Your task to perform on an android device: Open calendar and show me the third week of next month Image 0: 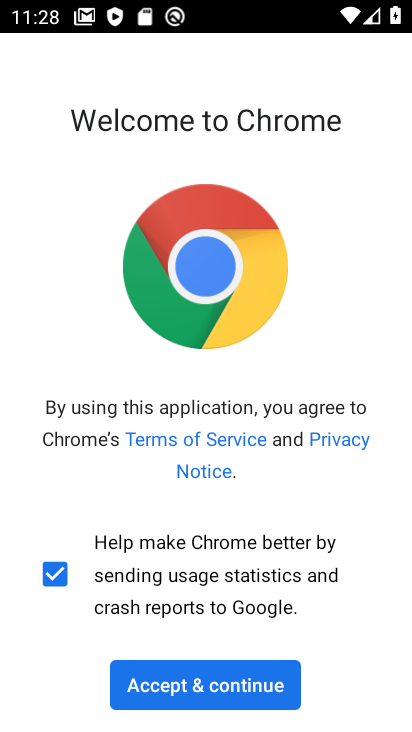
Step 0: press home button
Your task to perform on an android device: Open calendar and show me the third week of next month Image 1: 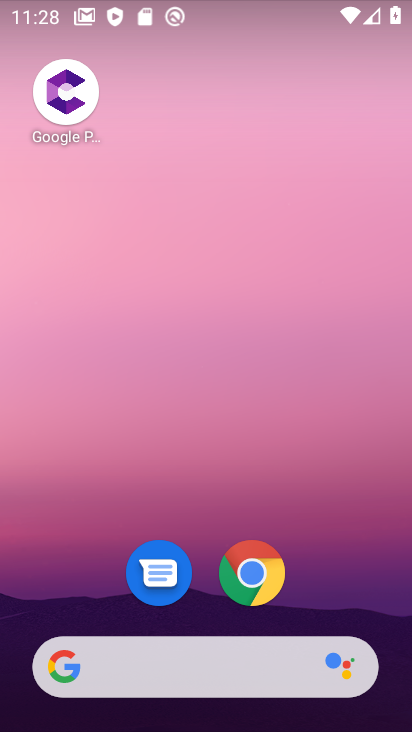
Step 1: drag from (133, 644) to (164, 81)
Your task to perform on an android device: Open calendar and show me the third week of next month Image 2: 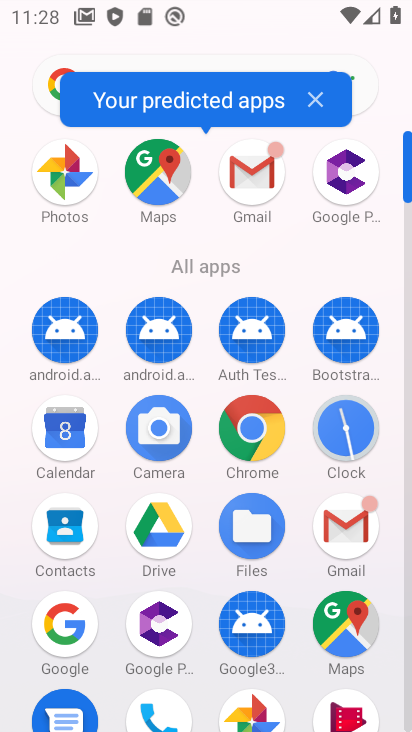
Step 2: click (51, 431)
Your task to perform on an android device: Open calendar and show me the third week of next month Image 3: 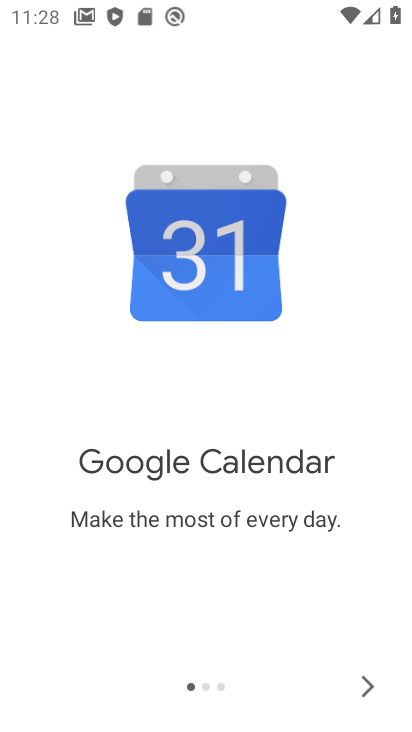
Step 3: click (365, 680)
Your task to perform on an android device: Open calendar and show me the third week of next month Image 4: 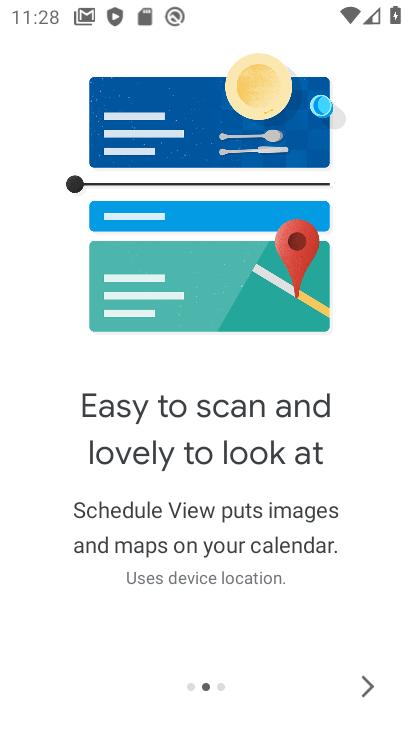
Step 4: click (365, 680)
Your task to perform on an android device: Open calendar and show me the third week of next month Image 5: 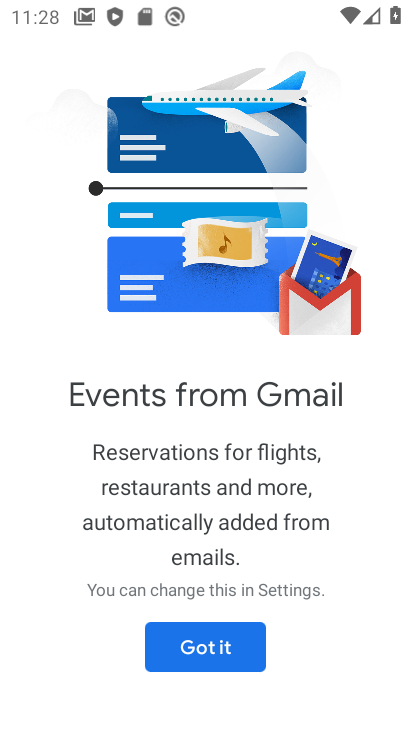
Step 5: click (170, 650)
Your task to perform on an android device: Open calendar and show me the third week of next month Image 6: 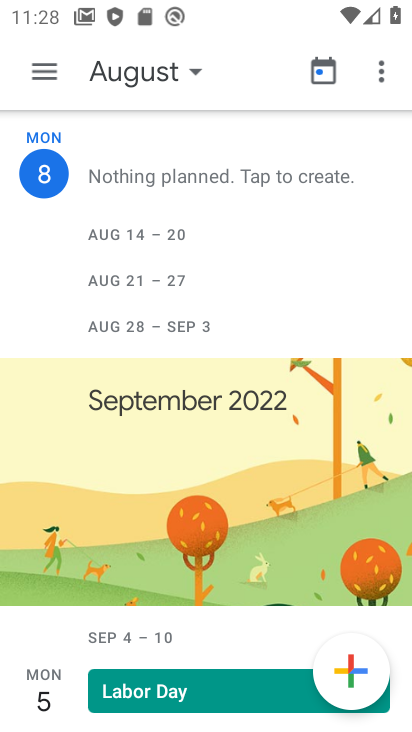
Step 6: click (118, 72)
Your task to perform on an android device: Open calendar and show me the third week of next month Image 7: 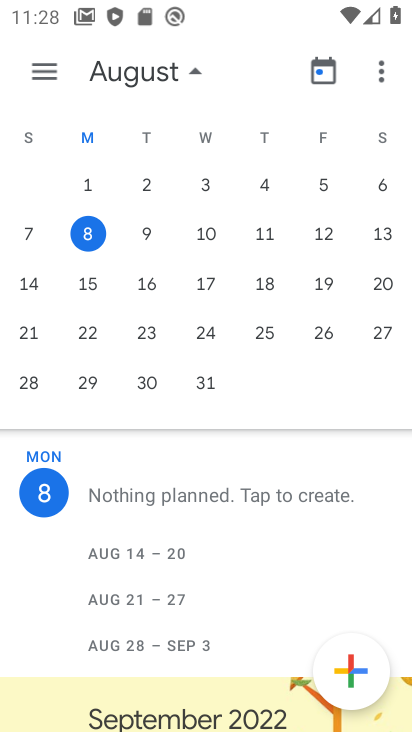
Step 7: drag from (10, 287) to (4, 342)
Your task to perform on an android device: Open calendar and show me the third week of next month Image 8: 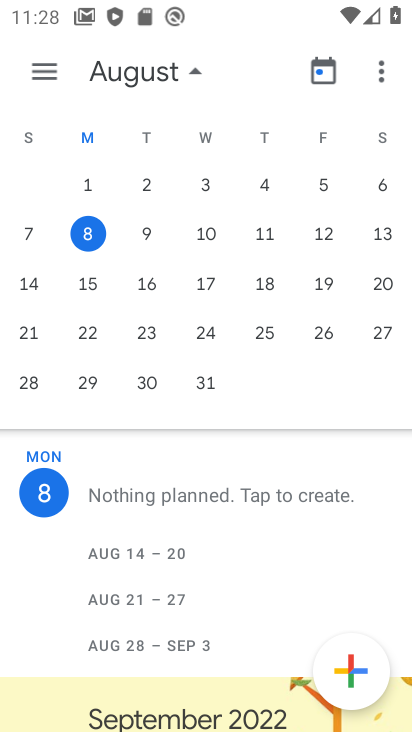
Step 8: drag from (394, 306) to (26, 300)
Your task to perform on an android device: Open calendar and show me the third week of next month Image 9: 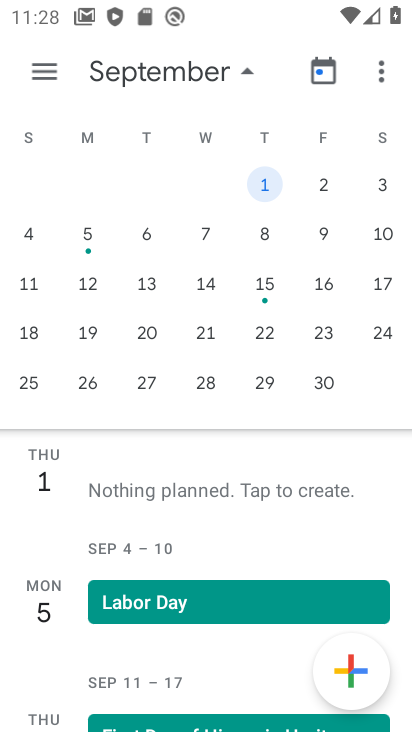
Step 9: click (28, 281)
Your task to perform on an android device: Open calendar and show me the third week of next month Image 10: 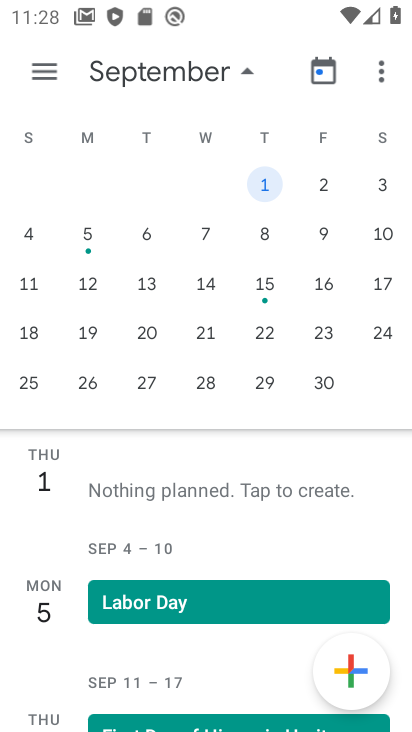
Step 10: click (35, 285)
Your task to perform on an android device: Open calendar and show me the third week of next month Image 11: 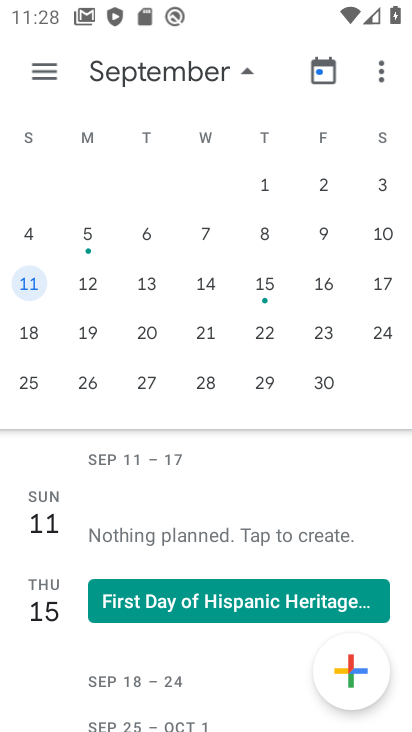
Step 11: task complete